Your task to perform on an android device: turn off improve location accuracy Image 0: 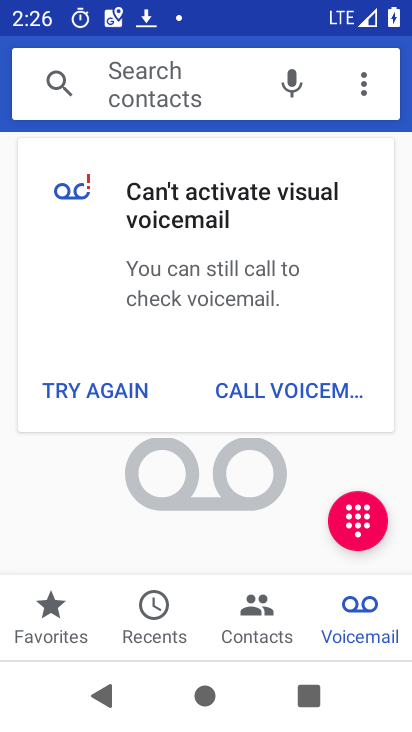
Step 0: press home button
Your task to perform on an android device: turn off improve location accuracy Image 1: 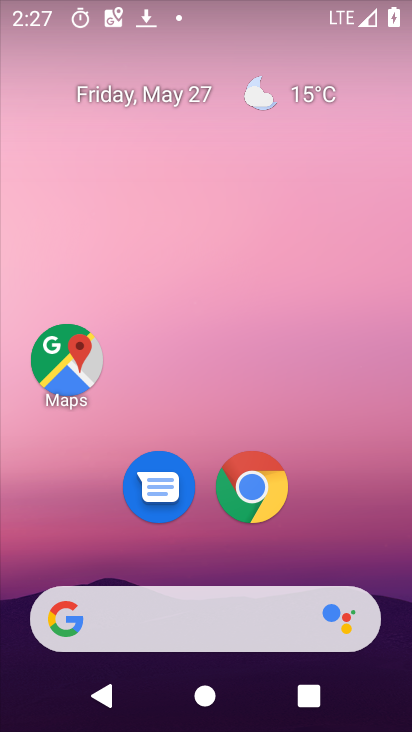
Step 1: drag from (330, 538) to (340, 136)
Your task to perform on an android device: turn off improve location accuracy Image 2: 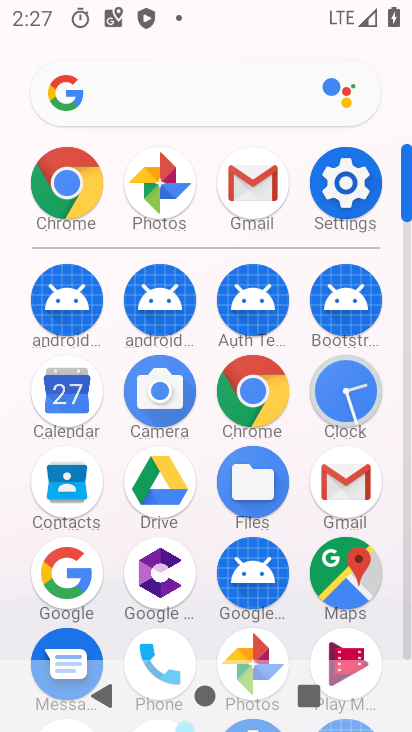
Step 2: click (347, 183)
Your task to perform on an android device: turn off improve location accuracy Image 3: 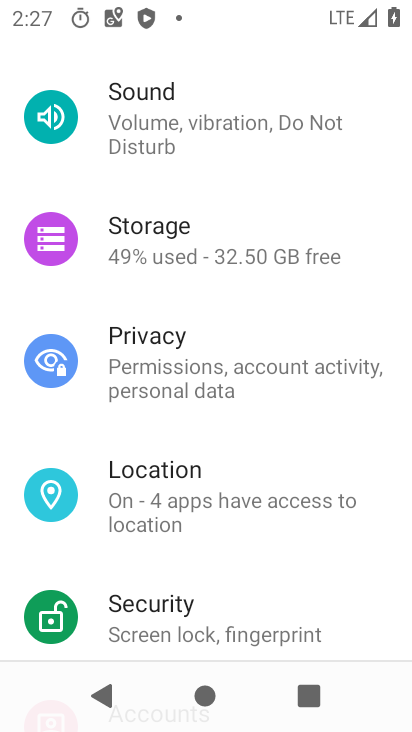
Step 3: click (305, 212)
Your task to perform on an android device: turn off improve location accuracy Image 4: 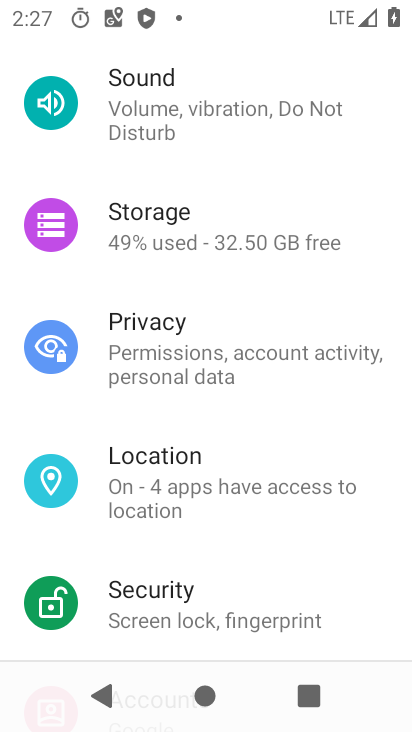
Step 4: click (207, 486)
Your task to perform on an android device: turn off improve location accuracy Image 5: 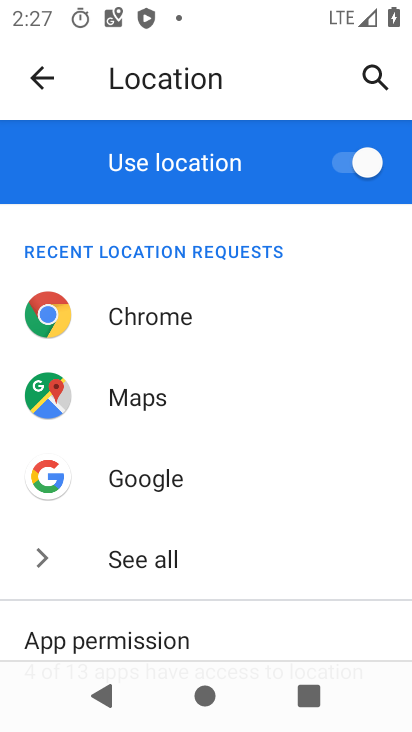
Step 5: drag from (279, 552) to (345, 182)
Your task to perform on an android device: turn off improve location accuracy Image 6: 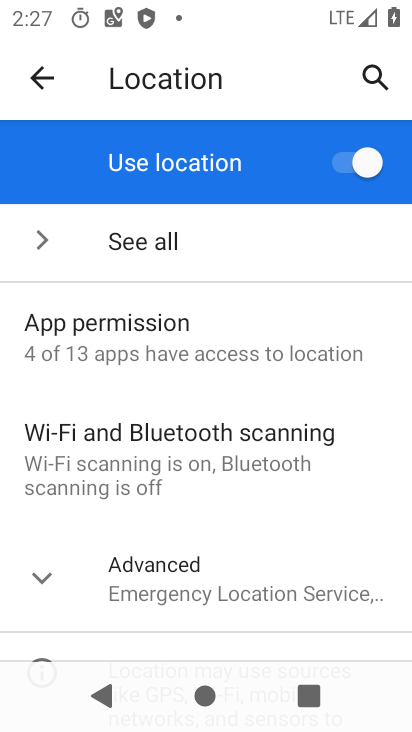
Step 6: click (203, 563)
Your task to perform on an android device: turn off improve location accuracy Image 7: 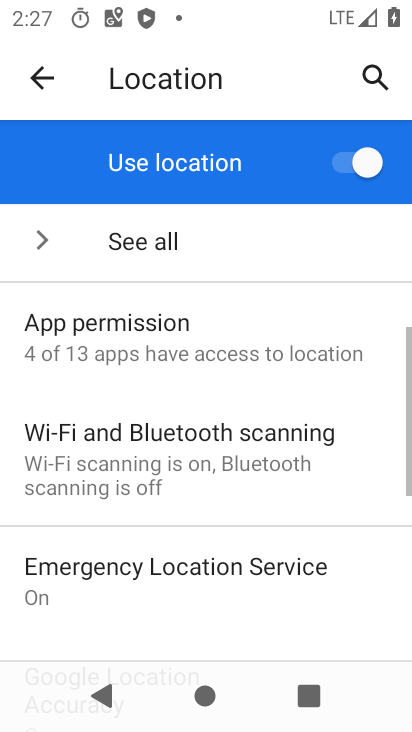
Step 7: drag from (315, 608) to (362, 213)
Your task to perform on an android device: turn off improve location accuracy Image 8: 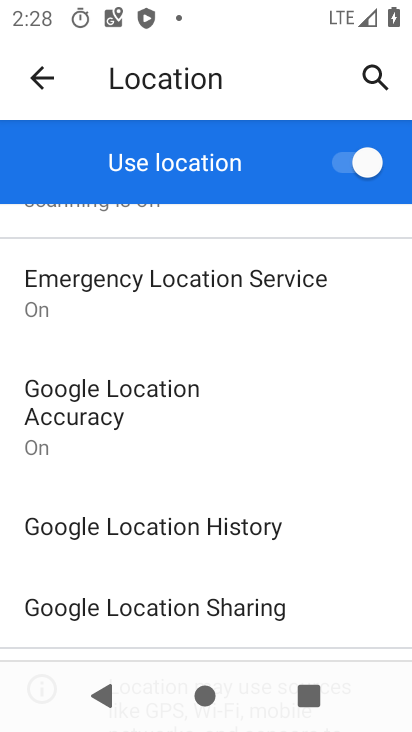
Step 8: click (116, 422)
Your task to perform on an android device: turn off improve location accuracy Image 9: 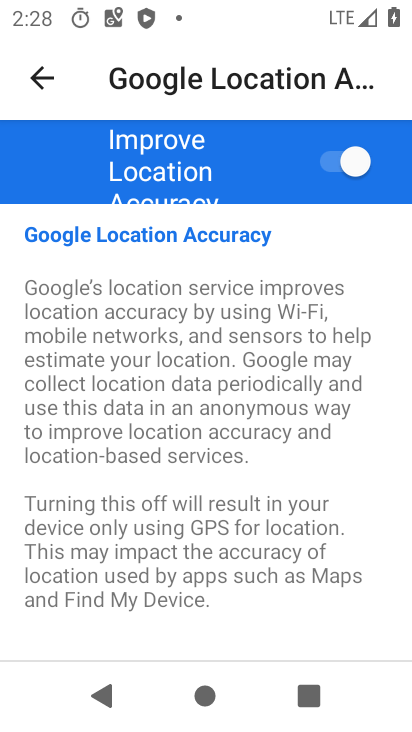
Step 9: click (319, 161)
Your task to perform on an android device: turn off improve location accuracy Image 10: 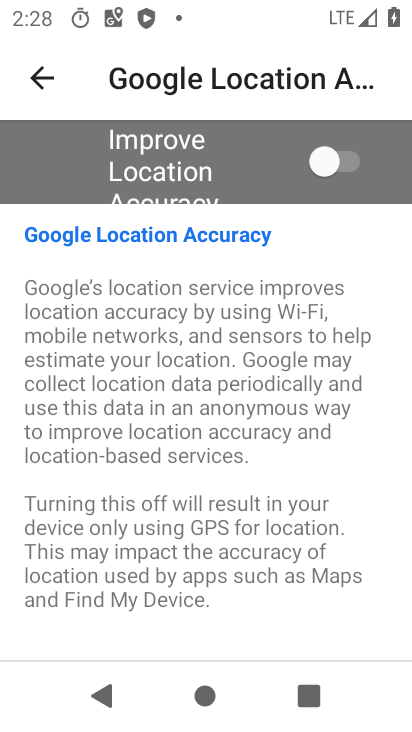
Step 10: task complete